Your task to perform on an android device: Open Google Chrome Image 0: 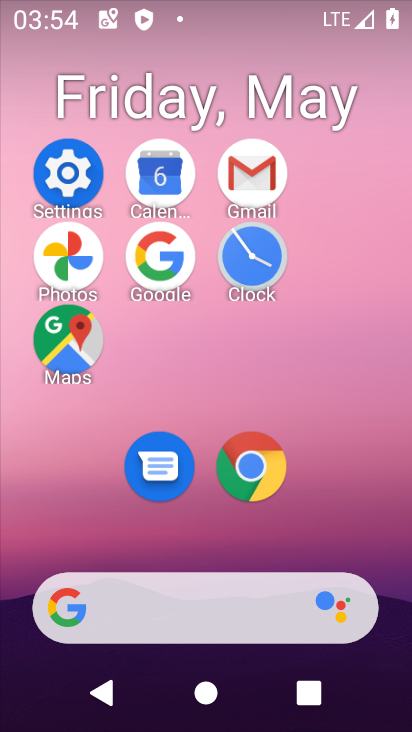
Step 0: click (243, 469)
Your task to perform on an android device: Open Google Chrome Image 1: 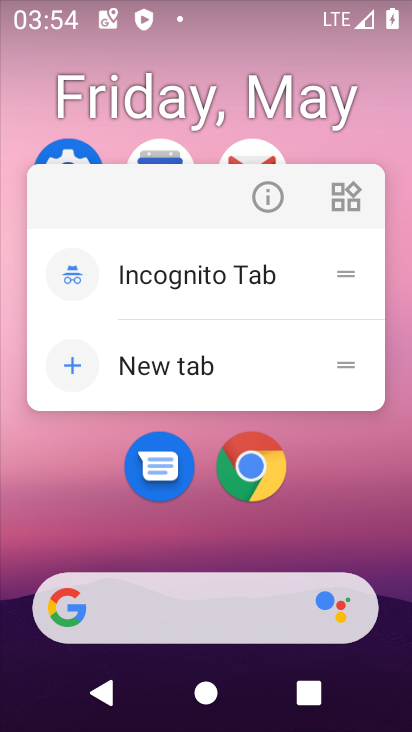
Step 1: click (250, 462)
Your task to perform on an android device: Open Google Chrome Image 2: 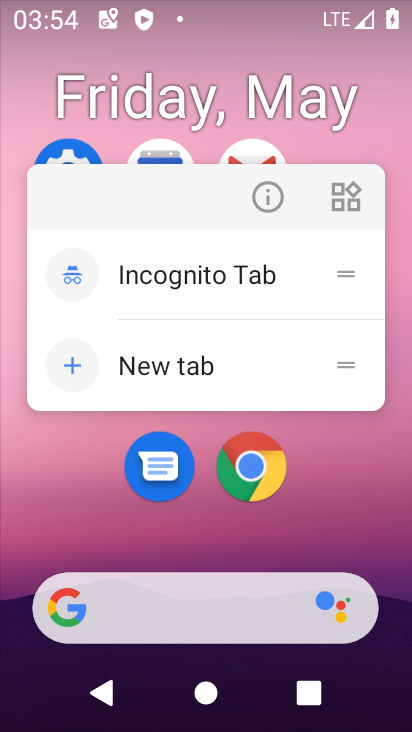
Step 2: click (276, 475)
Your task to perform on an android device: Open Google Chrome Image 3: 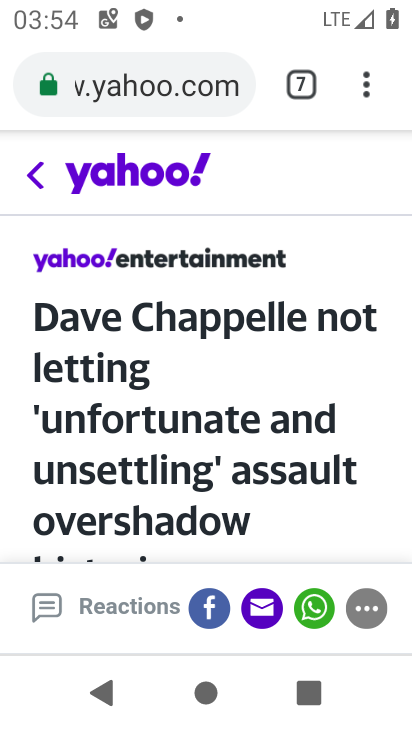
Step 3: click (246, 479)
Your task to perform on an android device: Open Google Chrome Image 4: 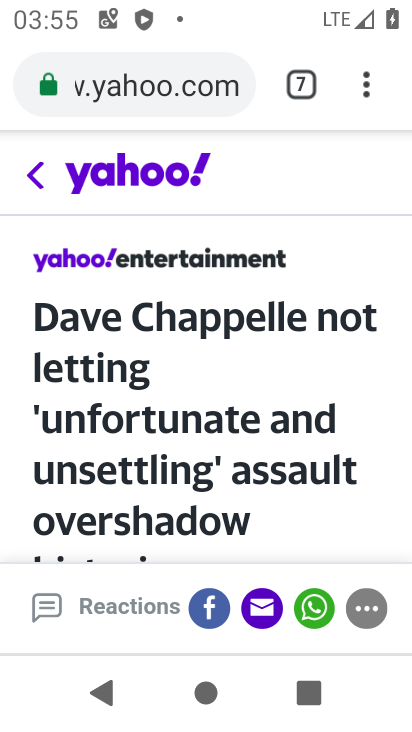
Step 4: task complete